Your task to perform on an android device: Add duracell triple a to the cart on bestbuy Image 0: 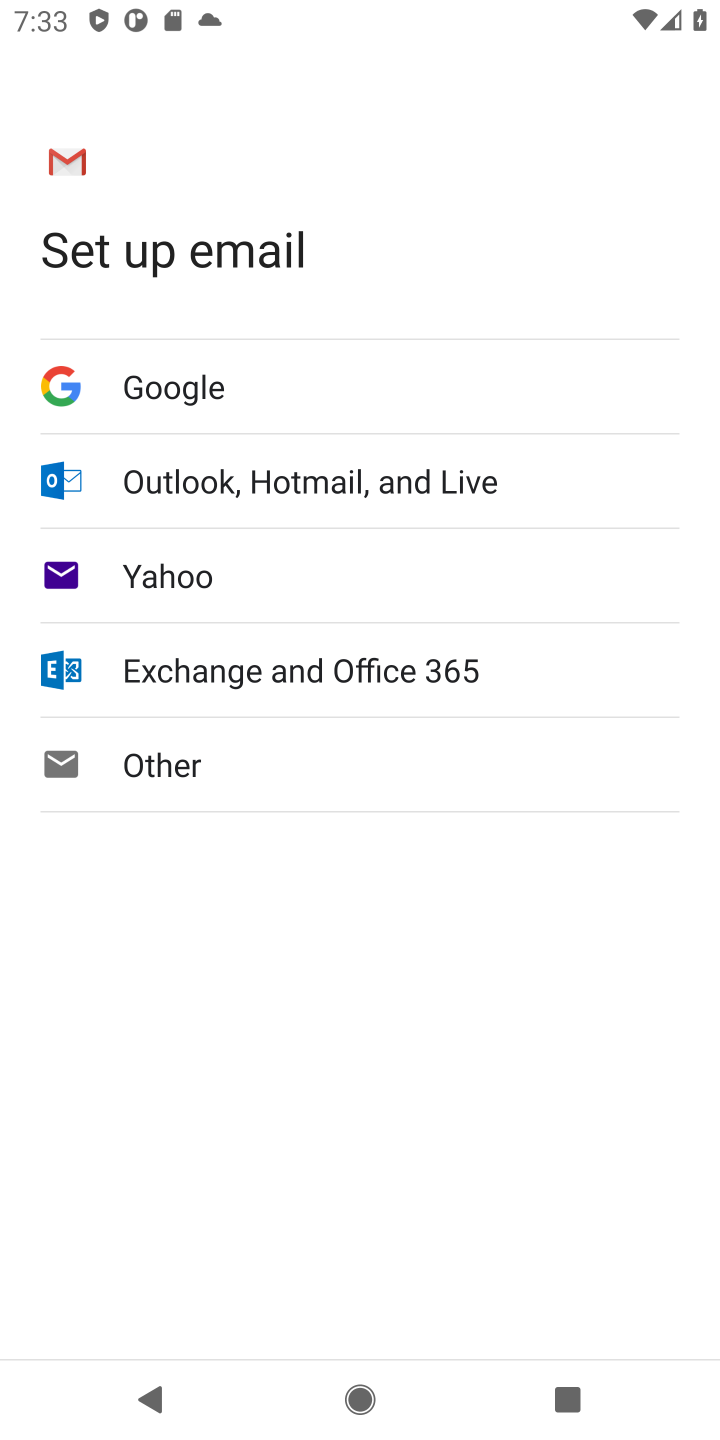
Step 0: press home button
Your task to perform on an android device: Add duracell triple a to the cart on bestbuy Image 1: 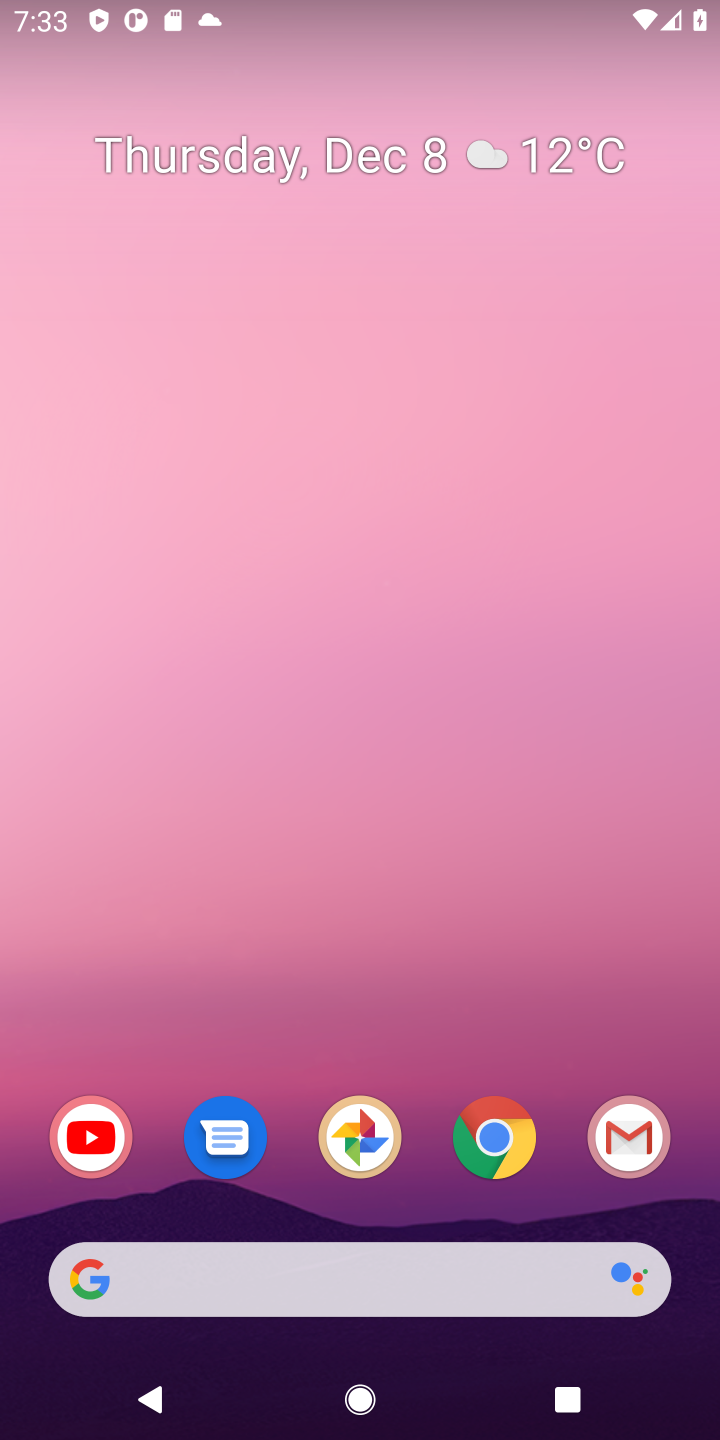
Step 1: click (475, 1151)
Your task to perform on an android device: Add duracell triple a to the cart on bestbuy Image 2: 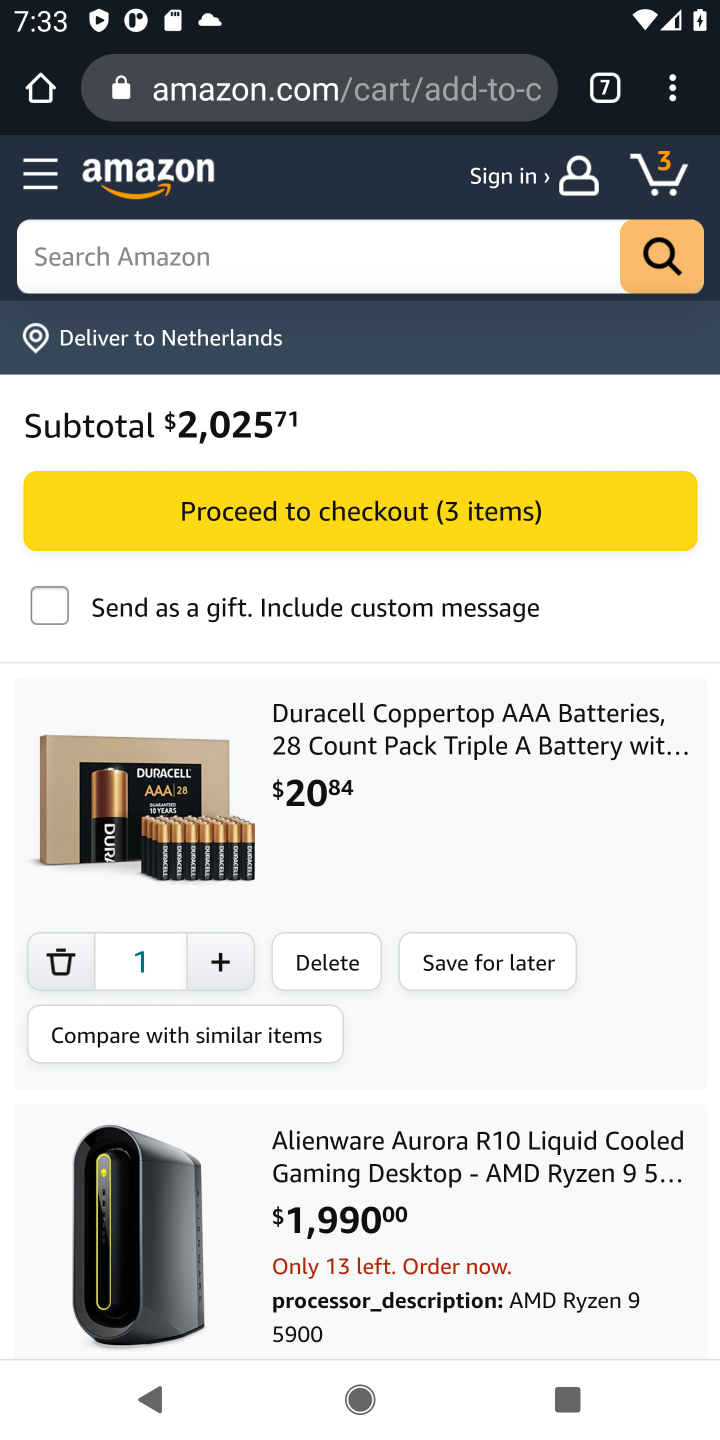
Step 2: click (598, 98)
Your task to perform on an android device: Add duracell triple a to the cart on bestbuy Image 3: 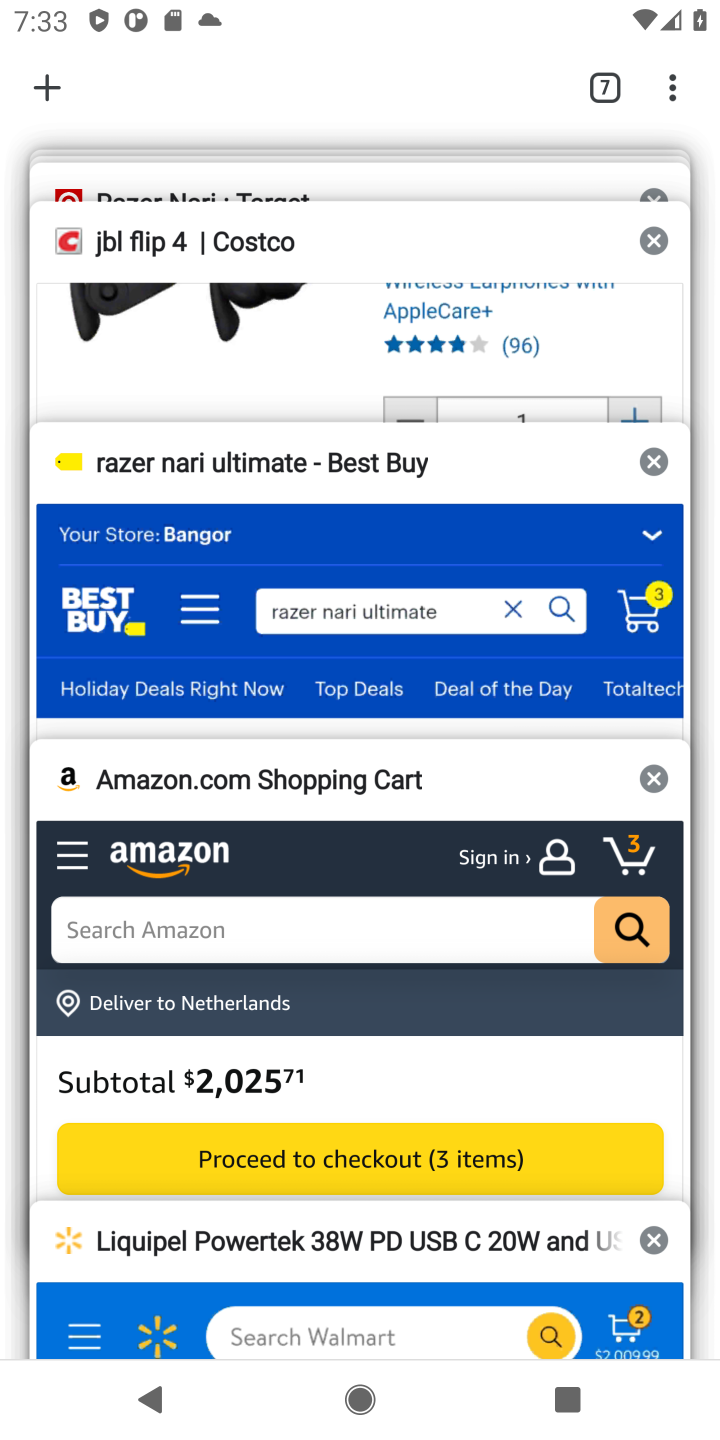
Step 3: click (170, 538)
Your task to perform on an android device: Add duracell triple a to the cart on bestbuy Image 4: 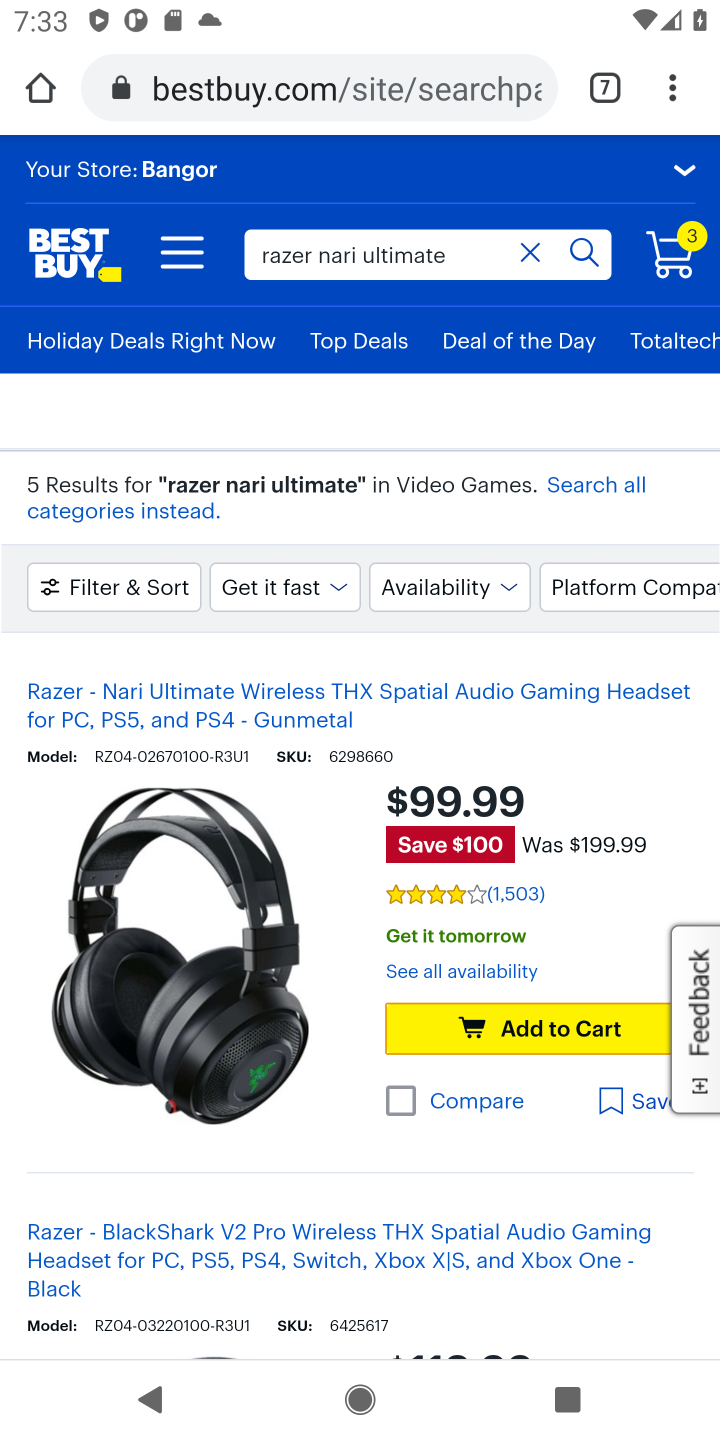
Step 4: click (521, 249)
Your task to perform on an android device: Add duracell triple a to the cart on bestbuy Image 5: 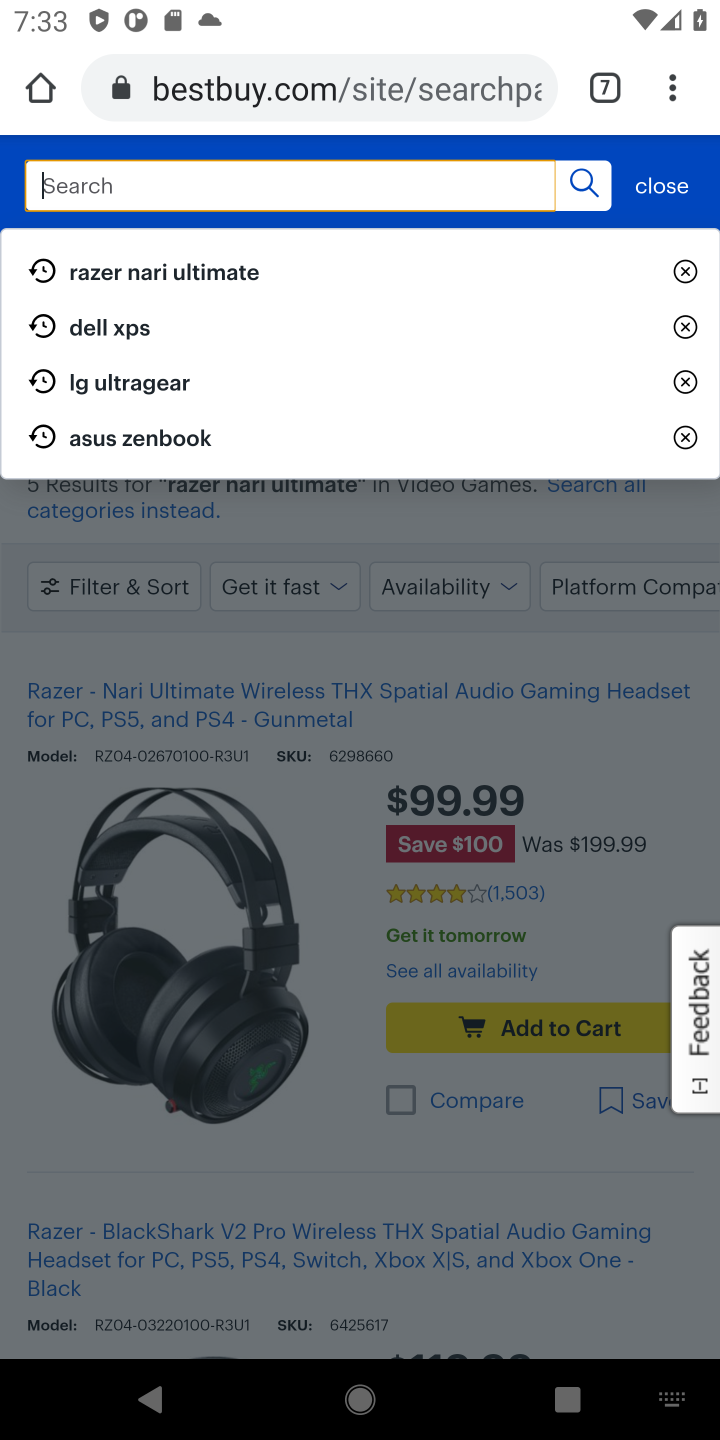
Step 5: type "duracell triple a"
Your task to perform on an android device: Add duracell triple a to the cart on bestbuy Image 6: 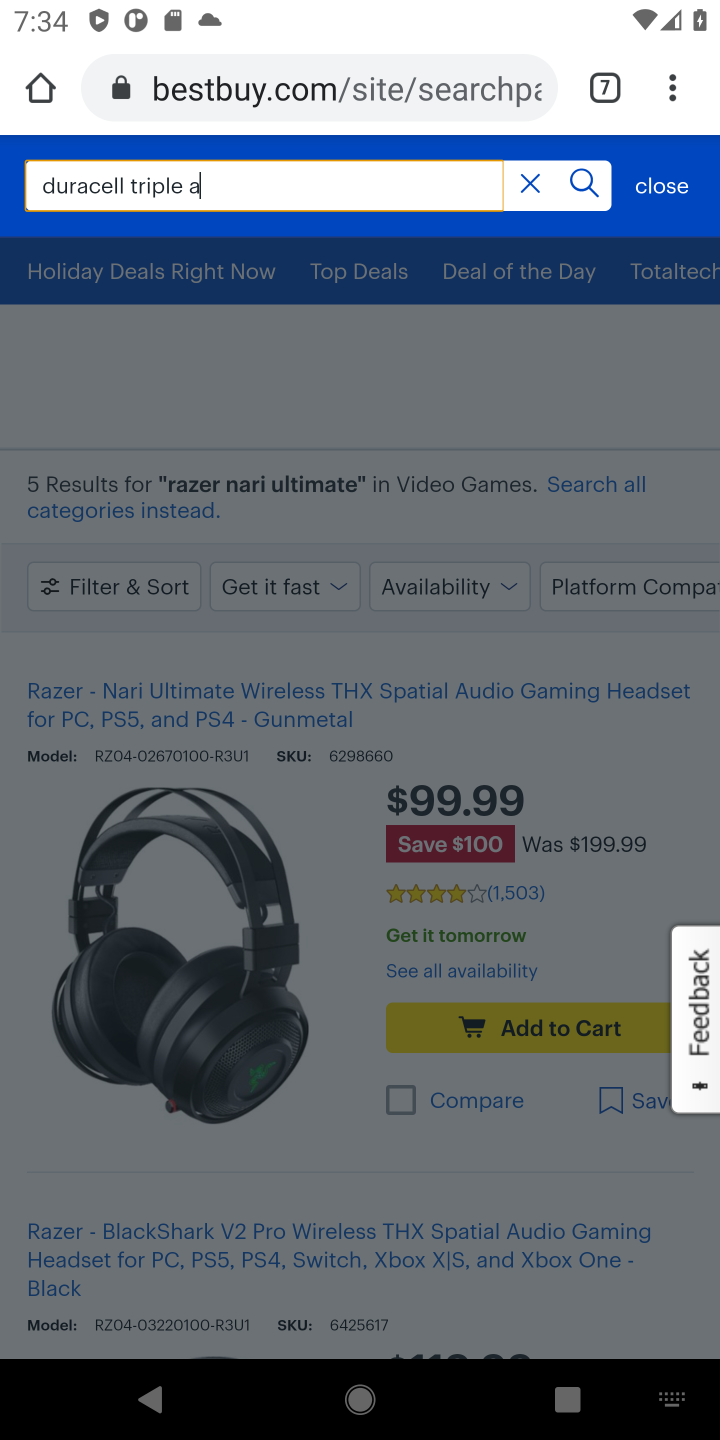
Step 6: type " battery"
Your task to perform on an android device: Add duracell triple a to the cart on bestbuy Image 7: 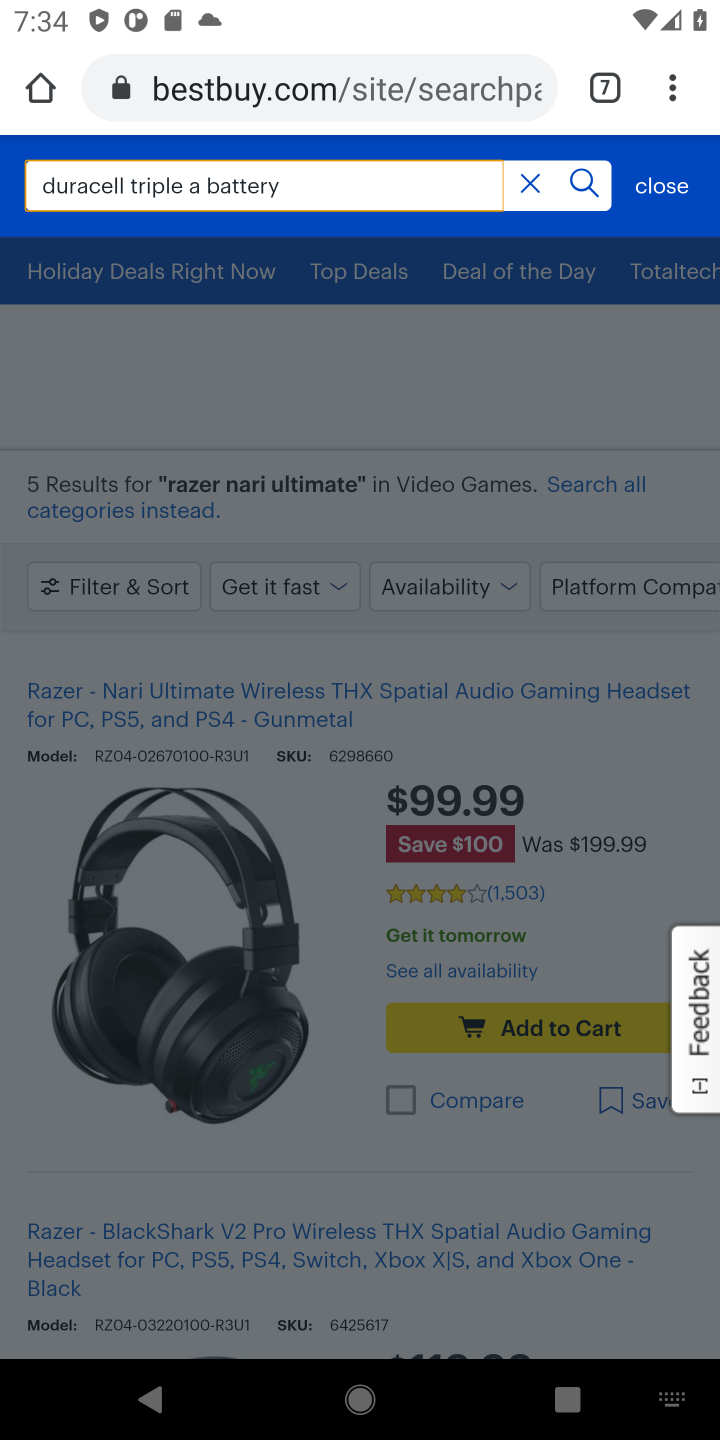
Step 7: press enter
Your task to perform on an android device: Add duracell triple a to the cart on bestbuy Image 8: 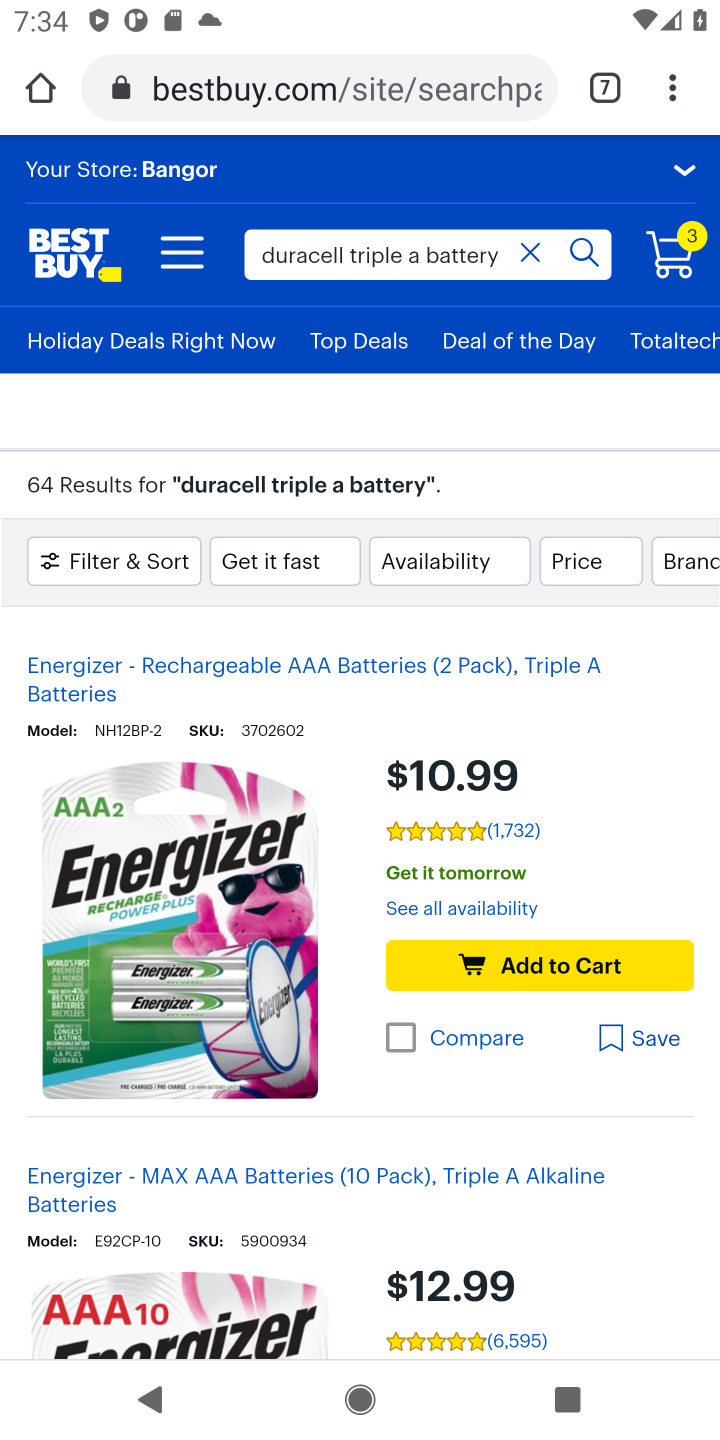
Step 8: task complete